Your task to perform on an android device: turn off priority inbox in the gmail app Image 0: 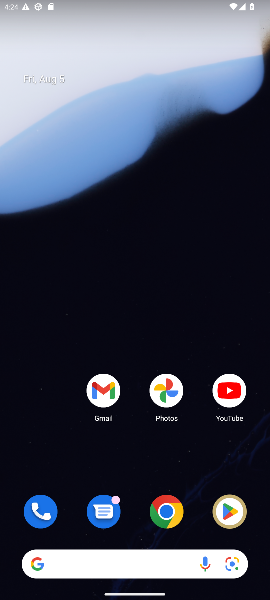
Step 0: click (102, 401)
Your task to perform on an android device: turn off priority inbox in the gmail app Image 1: 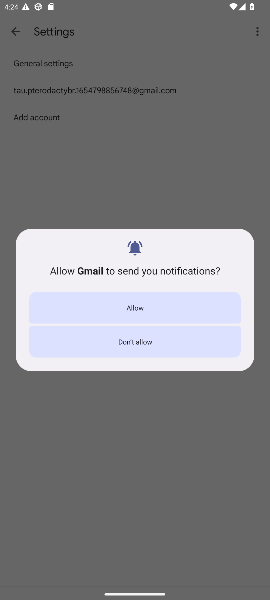
Step 1: click (112, 314)
Your task to perform on an android device: turn off priority inbox in the gmail app Image 2: 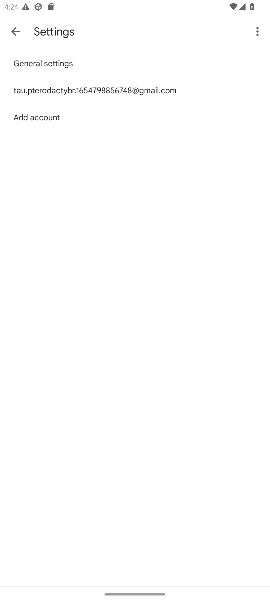
Step 2: click (31, 89)
Your task to perform on an android device: turn off priority inbox in the gmail app Image 3: 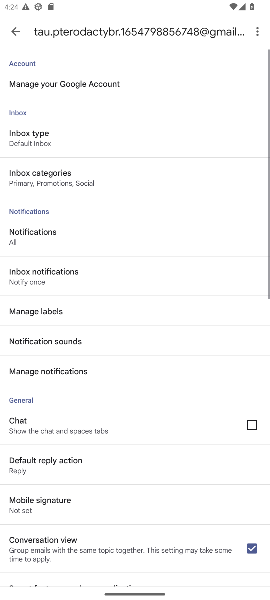
Step 3: task complete